Your task to perform on an android device: Open Android settings Image 0: 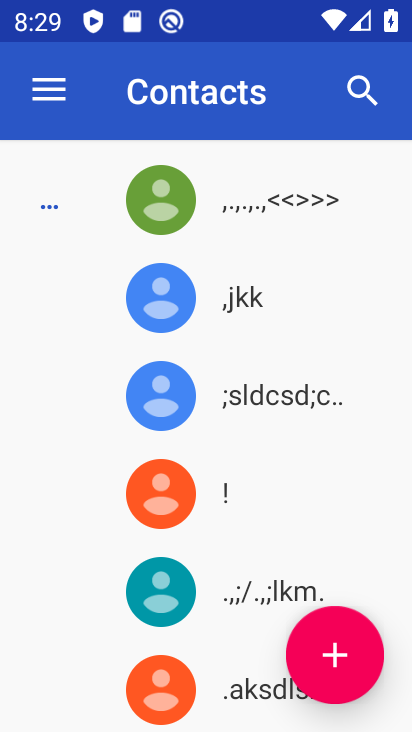
Step 0: press home button
Your task to perform on an android device: Open Android settings Image 1: 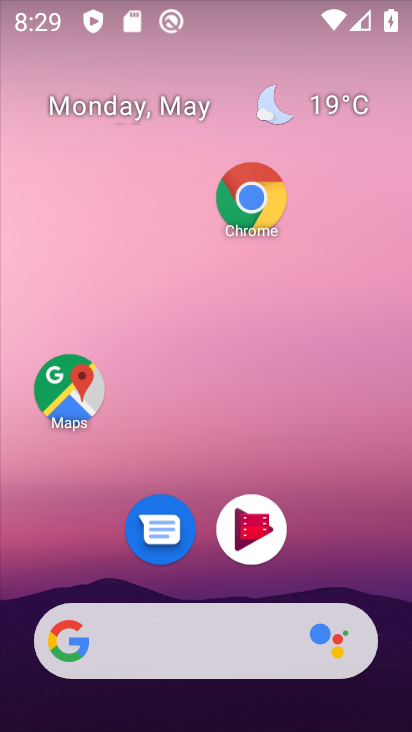
Step 1: drag from (203, 531) to (209, 228)
Your task to perform on an android device: Open Android settings Image 2: 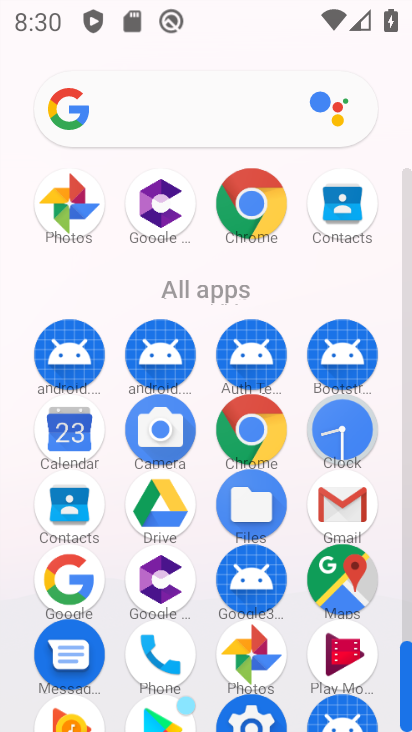
Step 2: click (260, 720)
Your task to perform on an android device: Open Android settings Image 3: 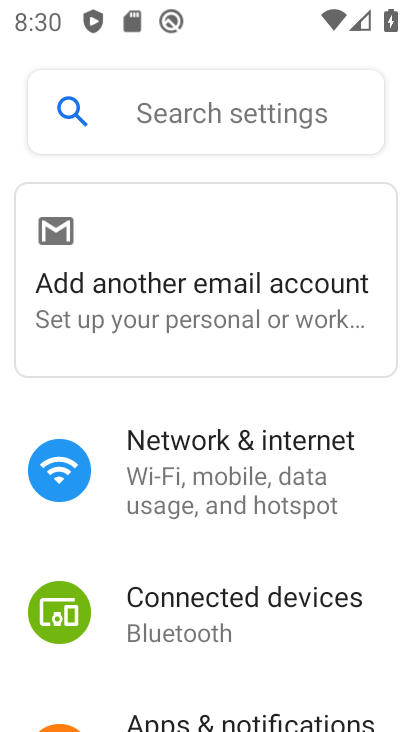
Step 3: drag from (218, 696) to (238, 31)
Your task to perform on an android device: Open Android settings Image 4: 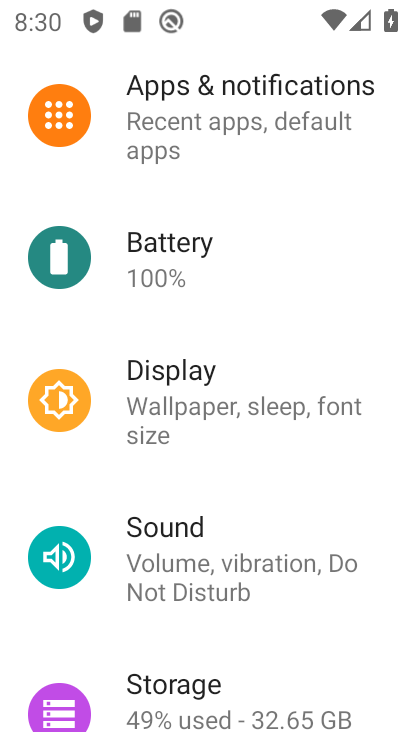
Step 4: drag from (239, 590) to (236, 157)
Your task to perform on an android device: Open Android settings Image 5: 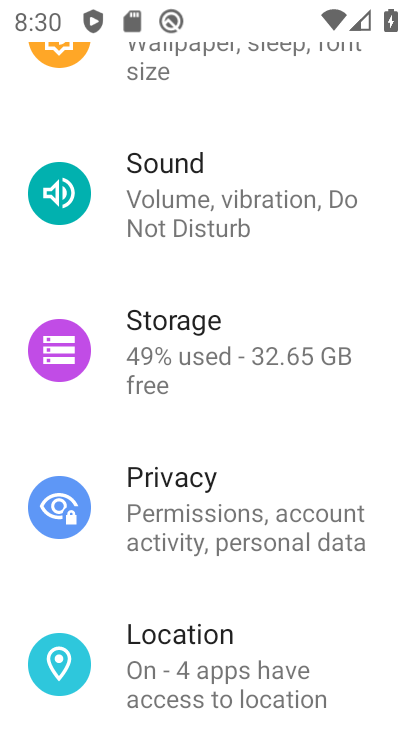
Step 5: drag from (257, 612) to (254, 238)
Your task to perform on an android device: Open Android settings Image 6: 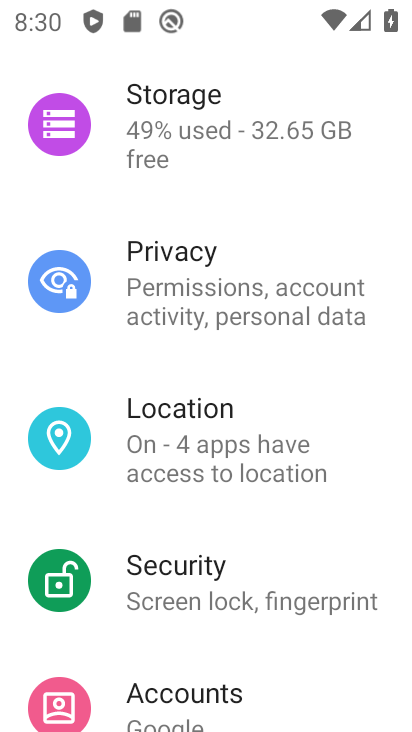
Step 6: drag from (226, 614) to (218, 120)
Your task to perform on an android device: Open Android settings Image 7: 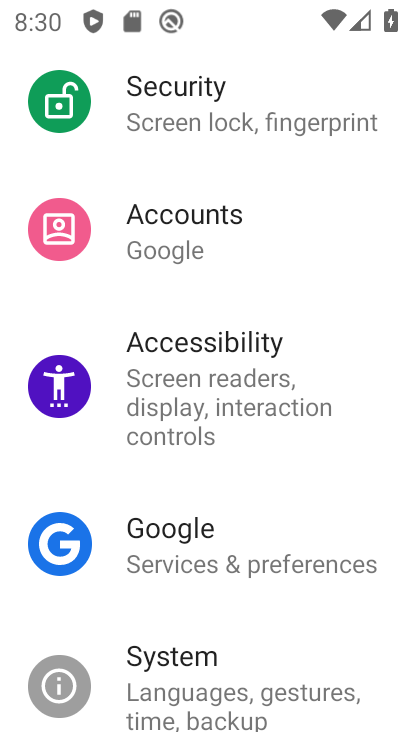
Step 7: drag from (224, 646) to (229, 89)
Your task to perform on an android device: Open Android settings Image 8: 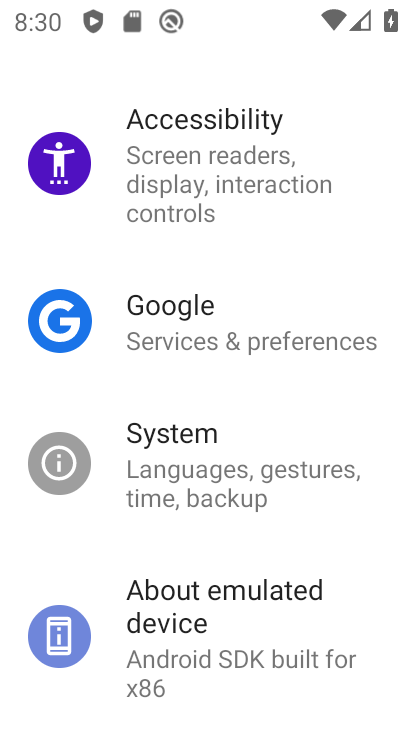
Step 8: click (221, 639)
Your task to perform on an android device: Open Android settings Image 9: 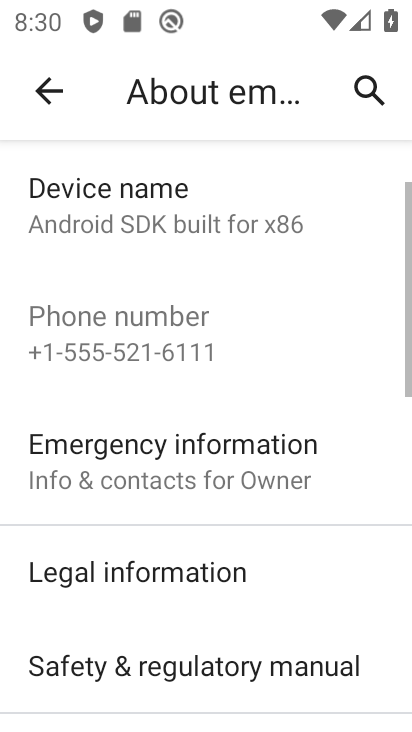
Step 9: task complete